Your task to perform on an android device: Search for Mexican restaurants on Maps Image 0: 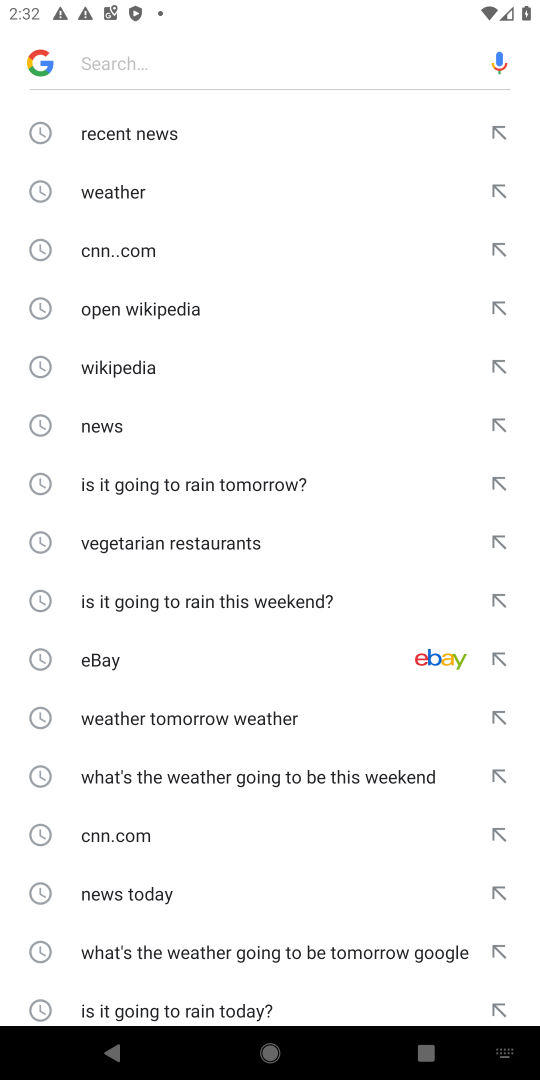
Step 0: press home button
Your task to perform on an android device: Search for Mexican restaurants on Maps Image 1: 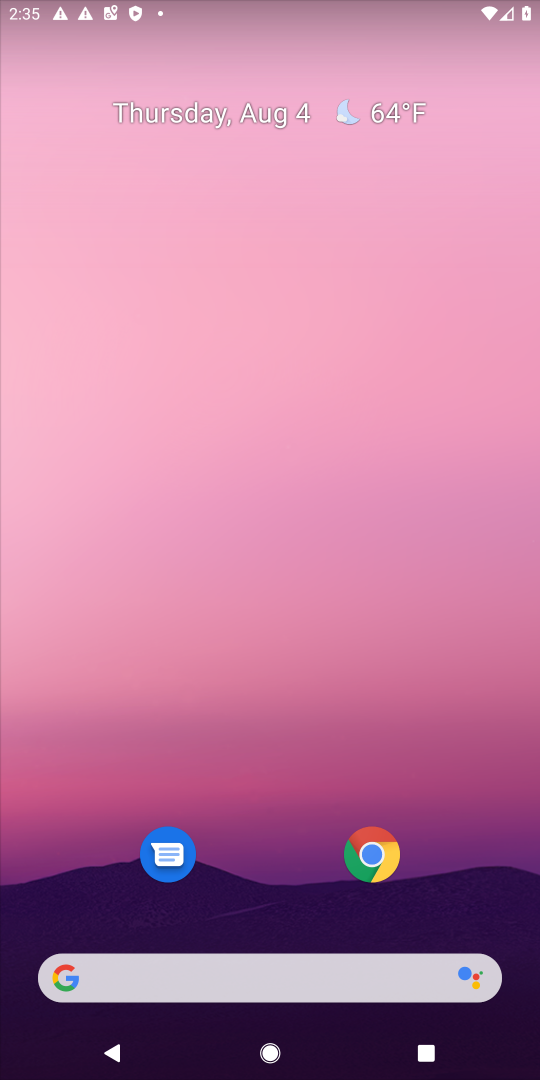
Step 1: drag from (246, 684) to (274, 234)
Your task to perform on an android device: Search for Mexican restaurants on Maps Image 2: 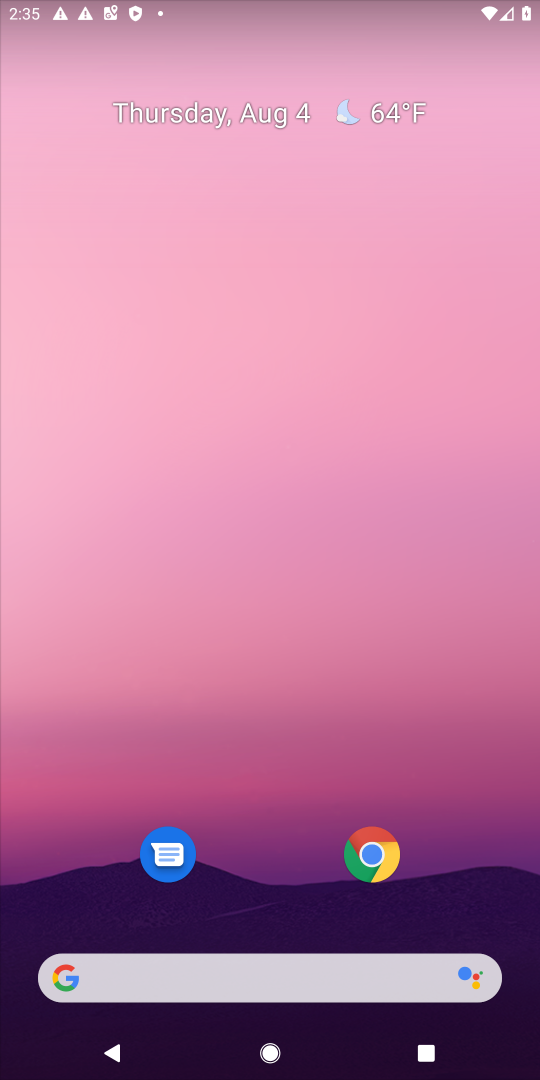
Step 2: drag from (291, 972) to (291, 208)
Your task to perform on an android device: Search for Mexican restaurants on Maps Image 3: 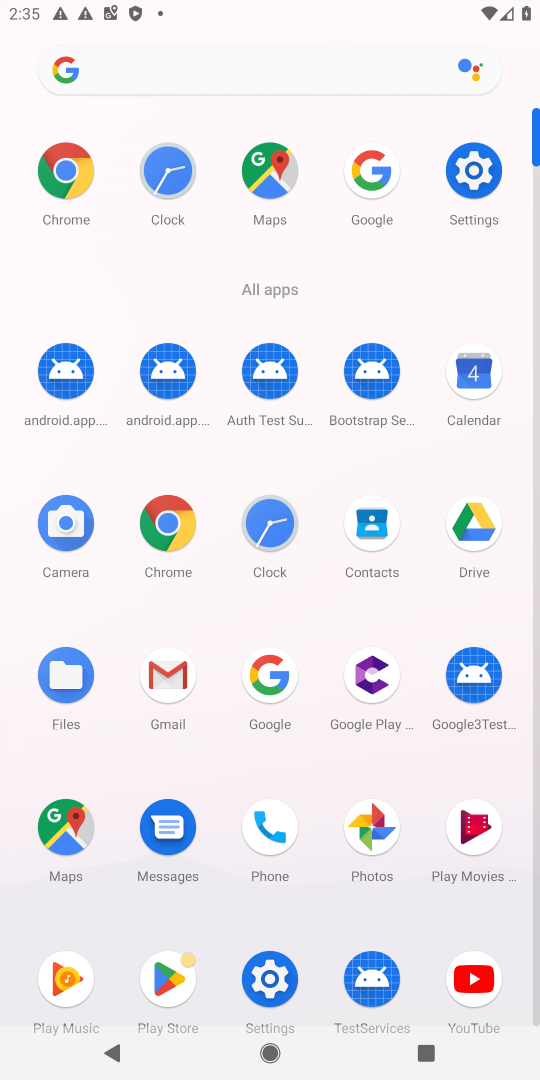
Step 3: click (81, 810)
Your task to perform on an android device: Search for Mexican restaurants on Maps Image 4: 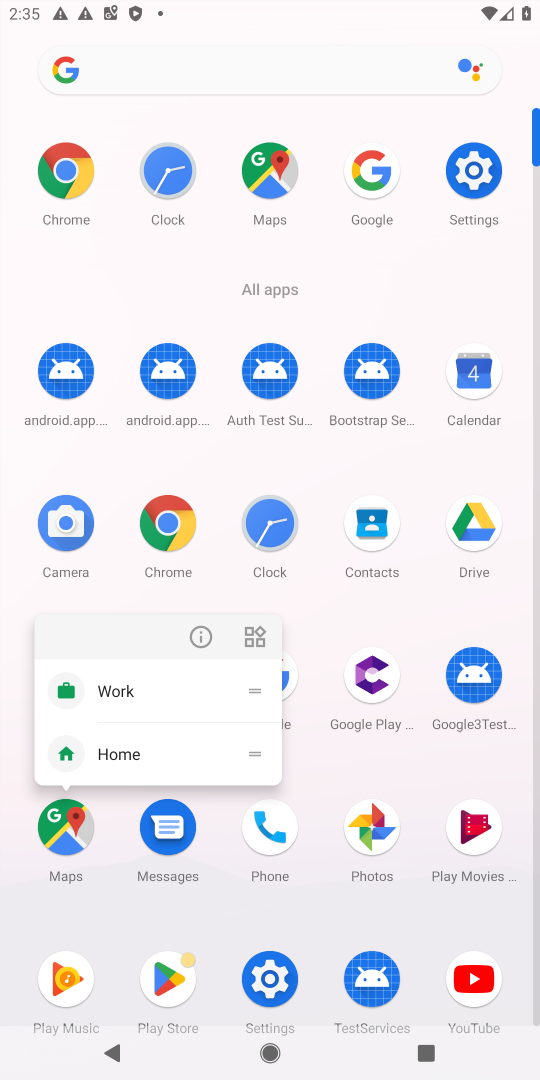
Step 4: click (78, 825)
Your task to perform on an android device: Search for Mexican restaurants on Maps Image 5: 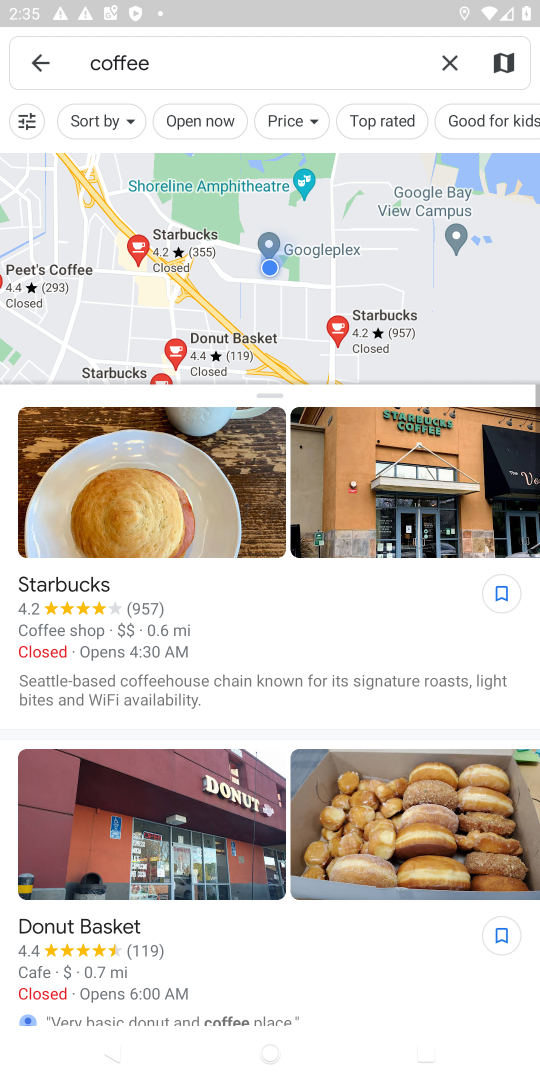
Step 5: drag from (446, 71) to (529, 81)
Your task to perform on an android device: Search for Mexican restaurants on Maps Image 6: 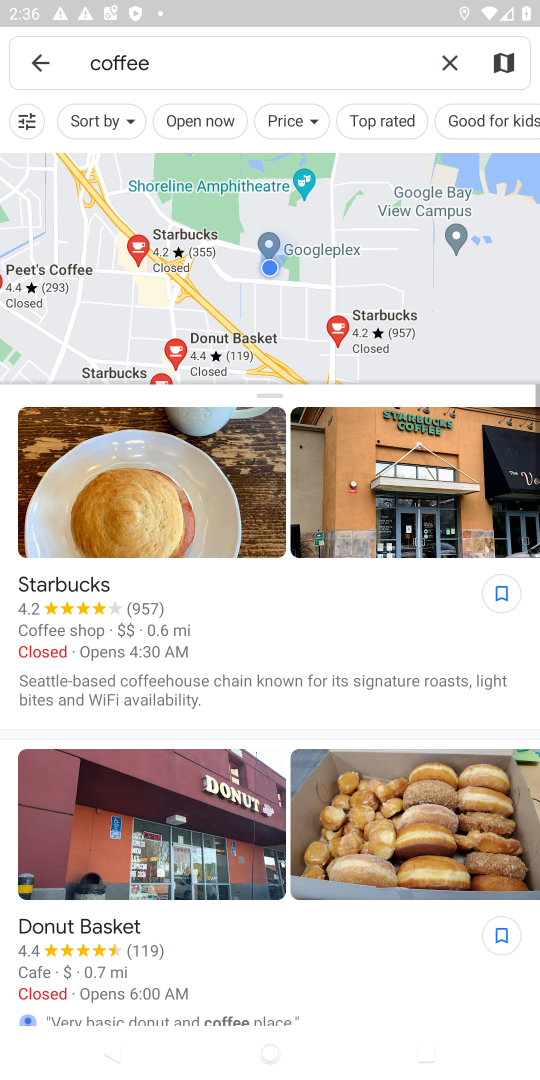
Step 6: click (443, 63)
Your task to perform on an android device: Search for Mexican restaurants on Maps Image 7: 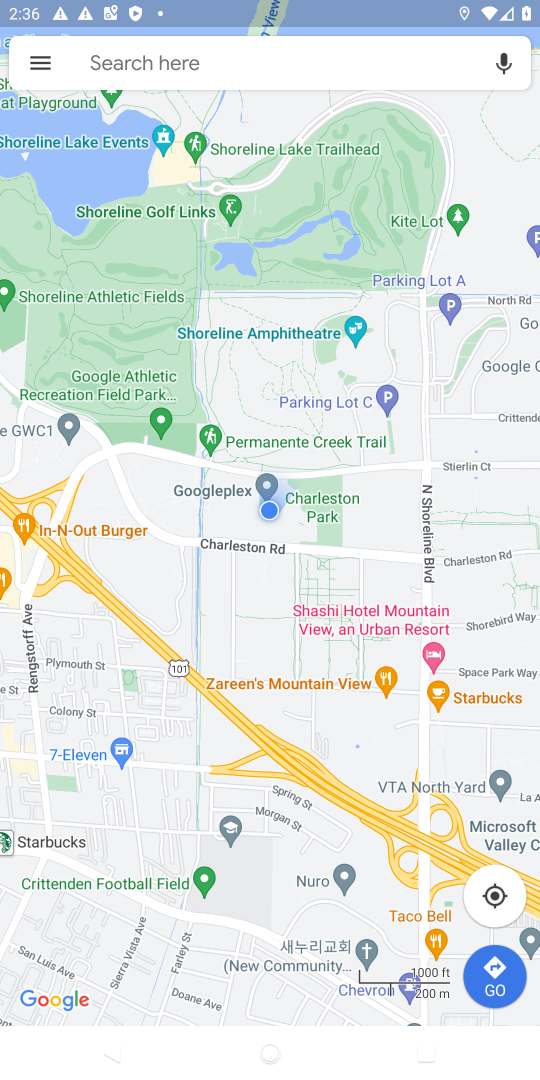
Step 7: click (230, 63)
Your task to perform on an android device: Search for Mexican restaurants on Maps Image 8: 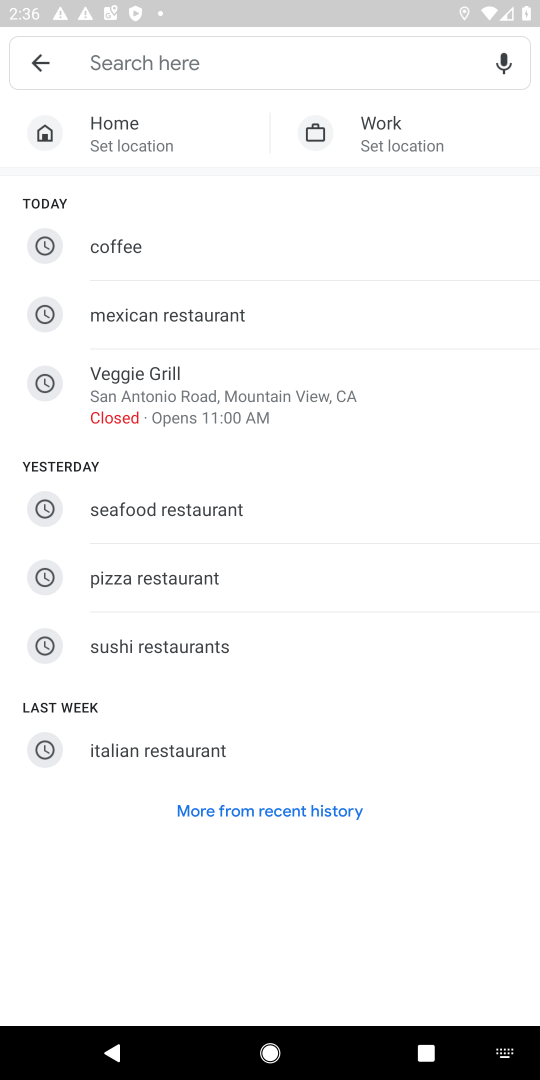
Step 8: click (221, 803)
Your task to perform on an android device: Search for Mexican restaurants on Maps Image 9: 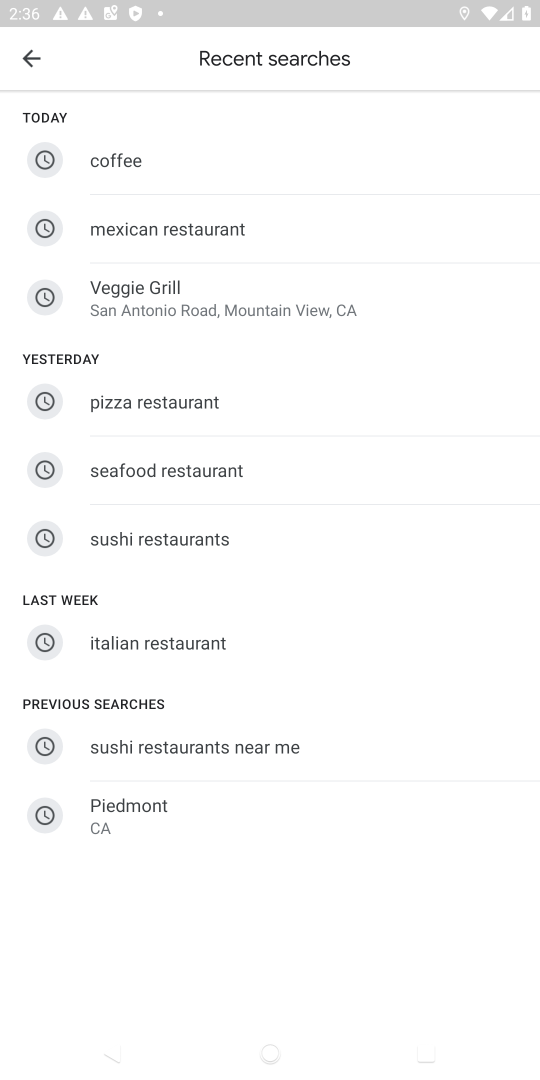
Step 9: click (159, 230)
Your task to perform on an android device: Search for Mexican restaurants on Maps Image 10: 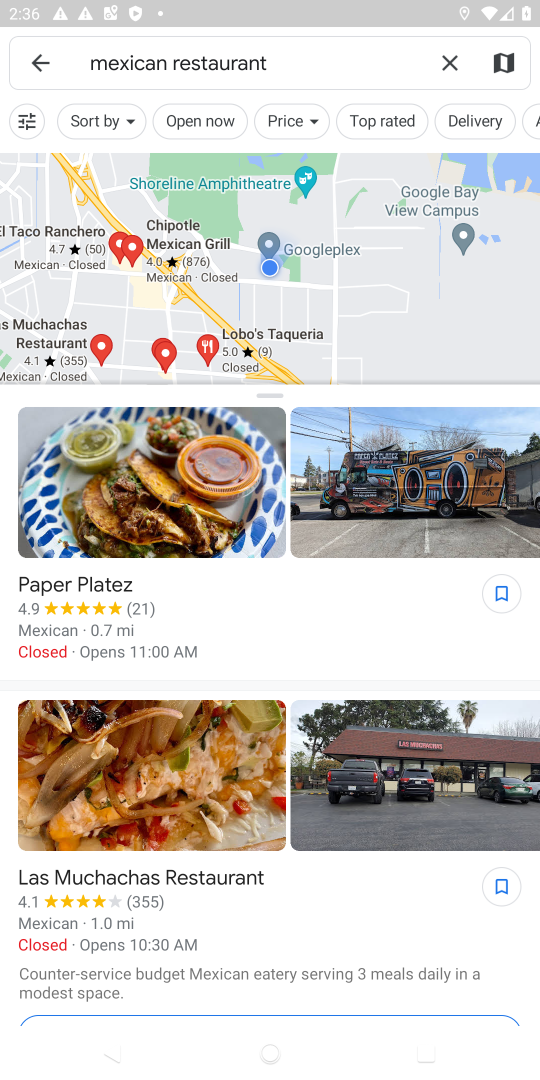
Step 10: task complete